Your task to perform on an android device: Show me popular games on the Play Store Image 0: 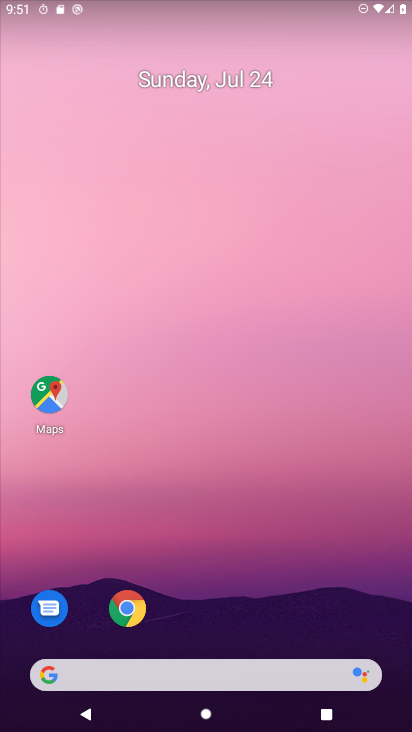
Step 0: drag from (194, 645) to (171, 9)
Your task to perform on an android device: Show me popular games on the Play Store Image 1: 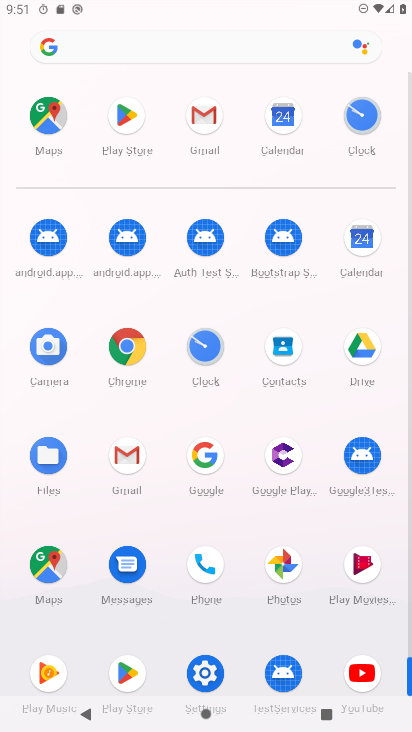
Step 1: click (121, 666)
Your task to perform on an android device: Show me popular games on the Play Store Image 2: 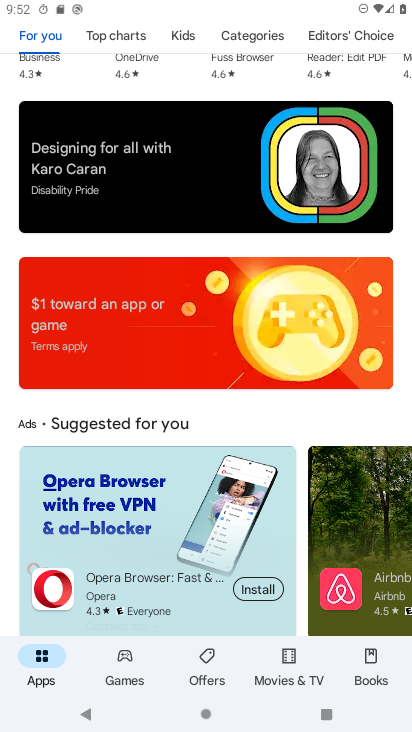
Step 2: task complete